Your task to perform on an android device: Go to display settings Image 0: 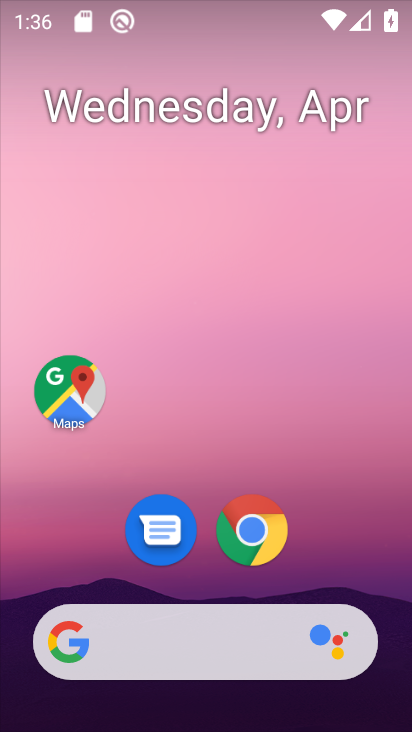
Step 0: drag from (321, 394) to (322, 207)
Your task to perform on an android device: Go to display settings Image 1: 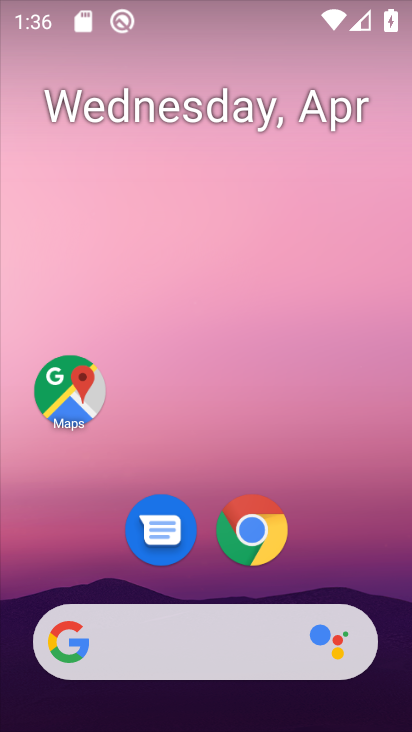
Step 1: drag from (336, 453) to (338, 173)
Your task to perform on an android device: Go to display settings Image 2: 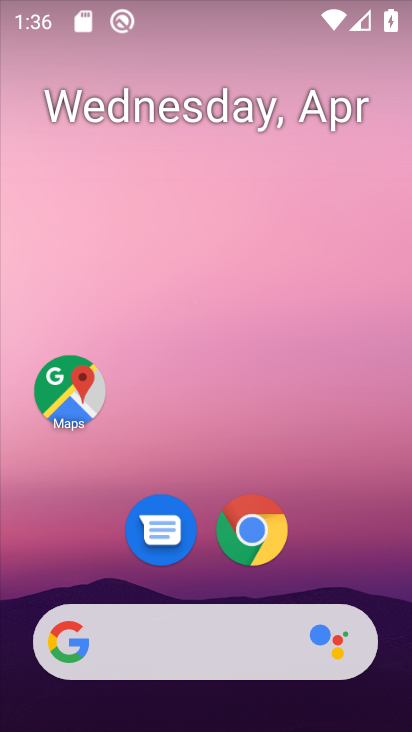
Step 2: drag from (340, 555) to (336, 150)
Your task to perform on an android device: Go to display settings Image 3: 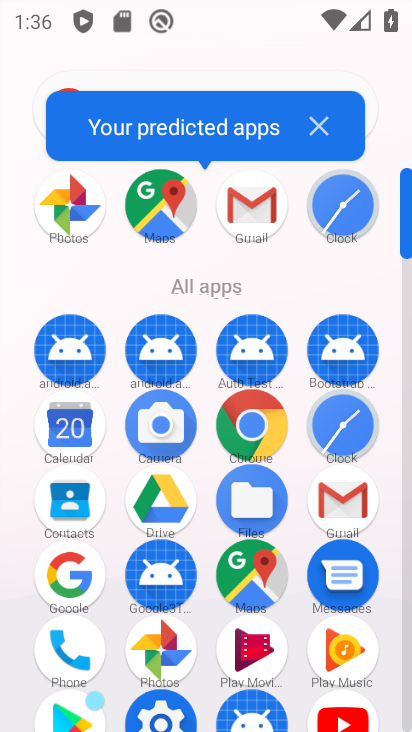
Step 3: drag from (209, 617) to (258, 293)
Your task to perform on an android device: Go to display settings Image 4: 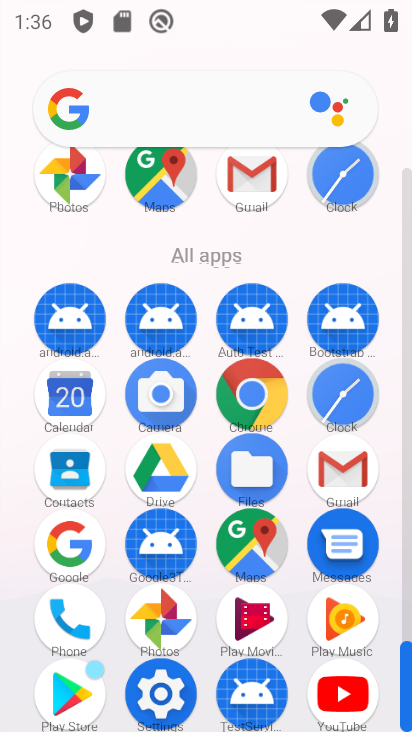
Step 4: click (168, 695)
Your task to perform on an android device: Go to display settings Image 5: 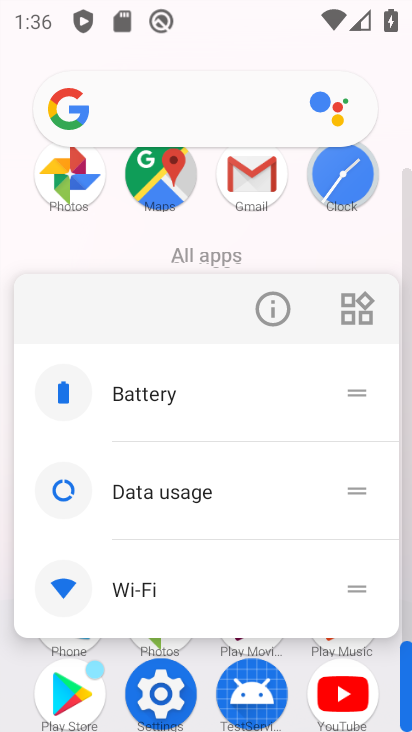
Step 5: click (166, 694)
Your task to perform on an android device: Go to display settings Image 6: 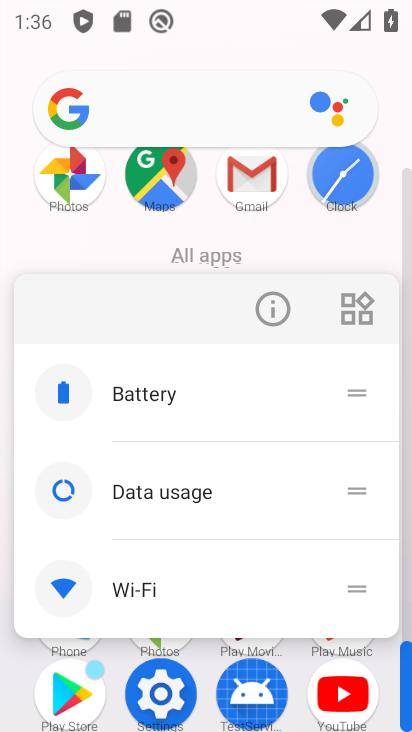
Step 6: click (167, 696)
Your task to perform on an android device: Go to display settings Image 7: 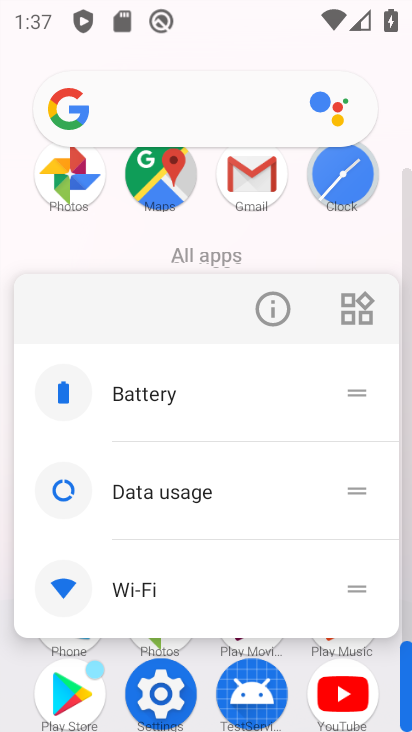
Step 7: click (169, 698)
Your task to perform on an android device: Go to display settings Image 8: 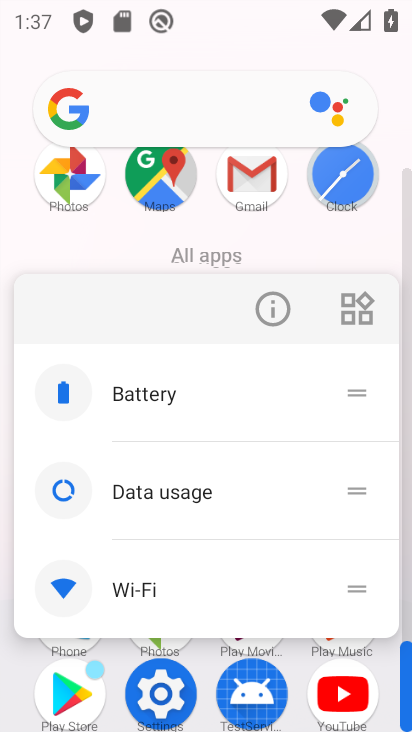
Step 8: click (298, 651)
Your task to perform on an android device: Go to display settings Image 9: 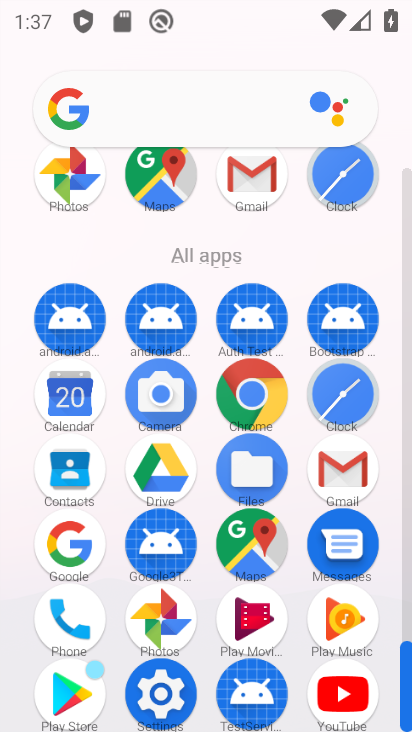
Step 9: click (177, 692)
Your task to perform on an android device: Go to display settings Image 10: 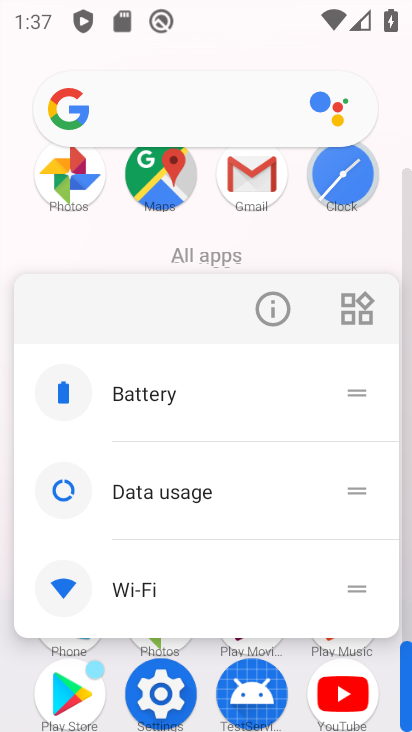
Step 10: click (296, 652)
Your task to perform on an android device: Go to display settings Image 11: 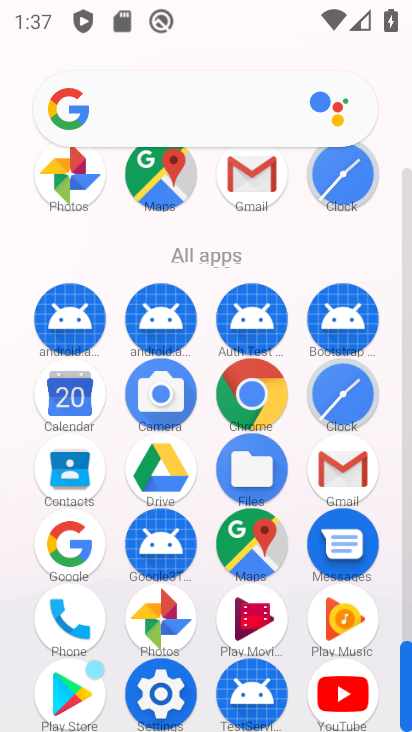
Step 11: drag from (293, 634) to (308, 417)
Your task to perform on an android device: Go to display settings Image 12: 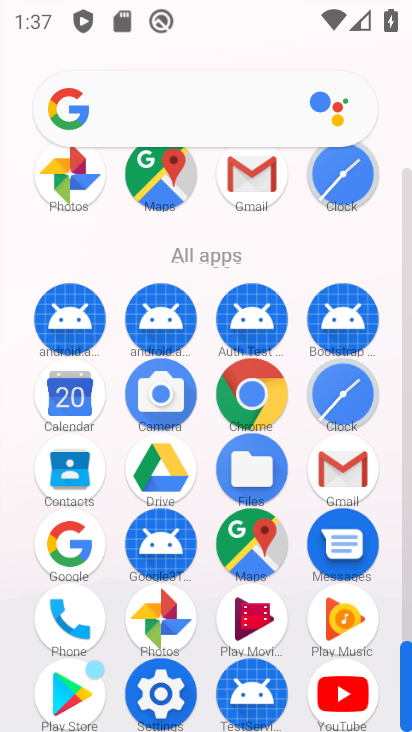
Step 12: click (160, 688)
Your task to perform on an android device: Go to display settings Image 13: 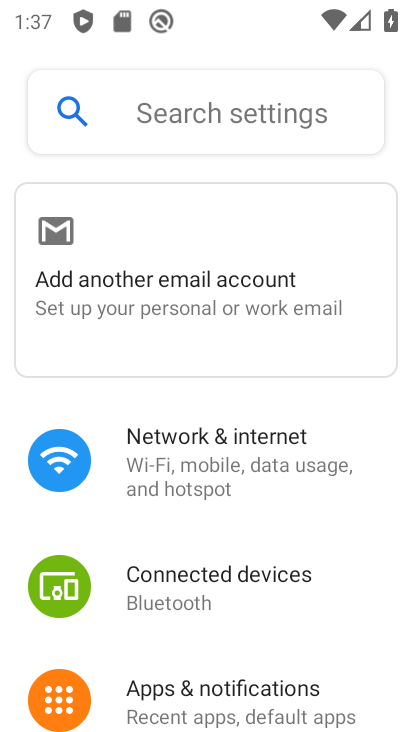
Step 13: drag from (248, 614) to (310, 261)
Your task to perform on an android device: Go to display settings Image 14: 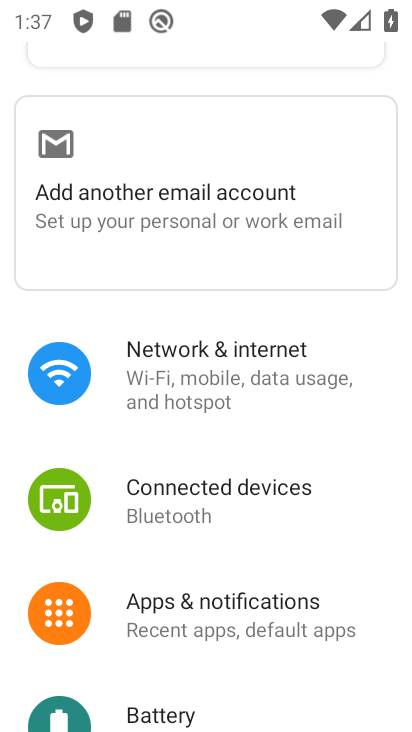
Step 14: drag from (281, 620) to (272, 216)
Your task to perform on an android device: Go to display settings Image 15: 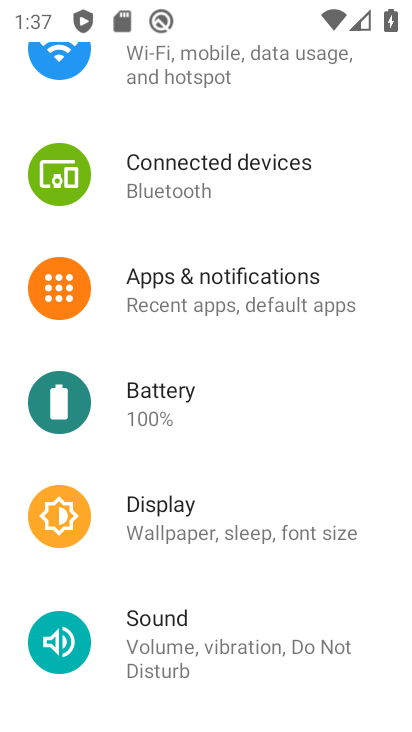
Step 15: click (206, 529)
Your task to perform on an android device: Go to display settings Image 16: 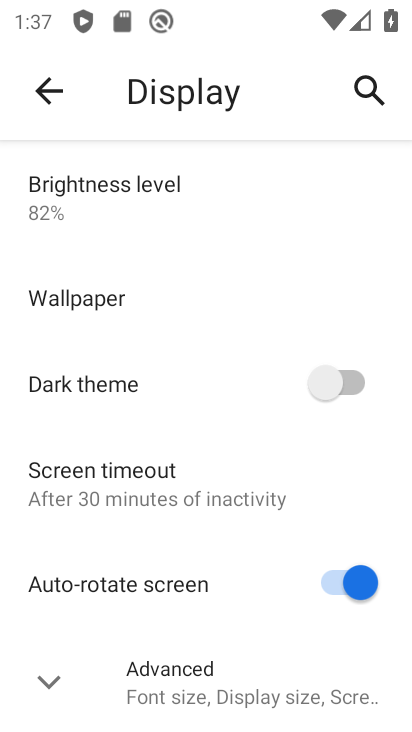
Step 16: task complete